Your task to perform on an android device: Open Google Image 0: 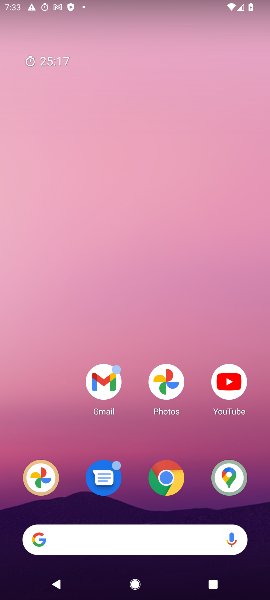
Step 0: drag from (126, 500) to (164, 35)
Your task to perform on an android device: Open Google Image 1: 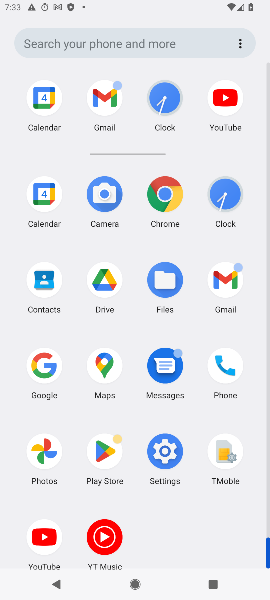
Step 1: click (40, 365)
Your task to perform on an android device: Open Google Image 2: 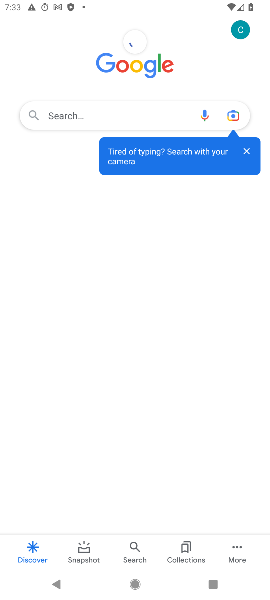
Step 2: task complete